Your task to perform on an android device: turn off notifications settings in the gmail app Image 0: 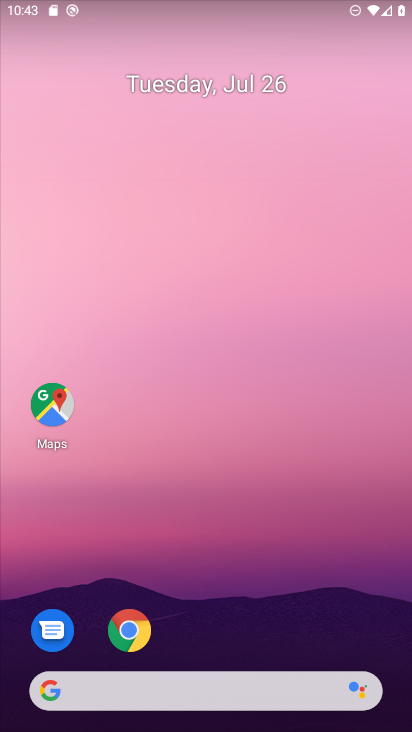
Step 0: drag from (383, 645) to (333, 193)
Your task to perform on an android device: turn off notifications settings in the gmail app Image 1: 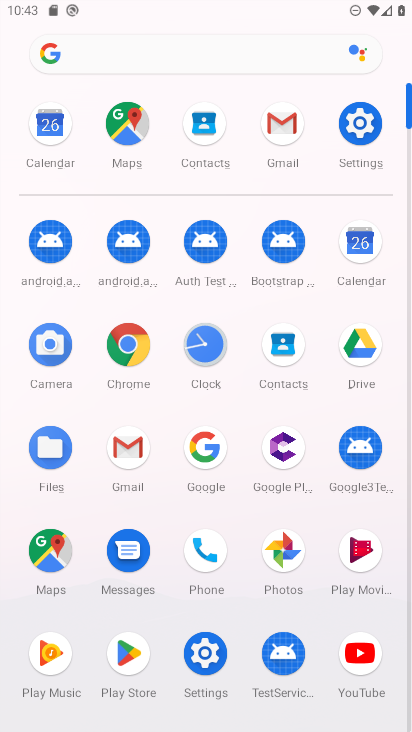
Step 1: click (129, 443)
Your task to perform on an android device: turn off notifications settings in the gmail app Image 2: 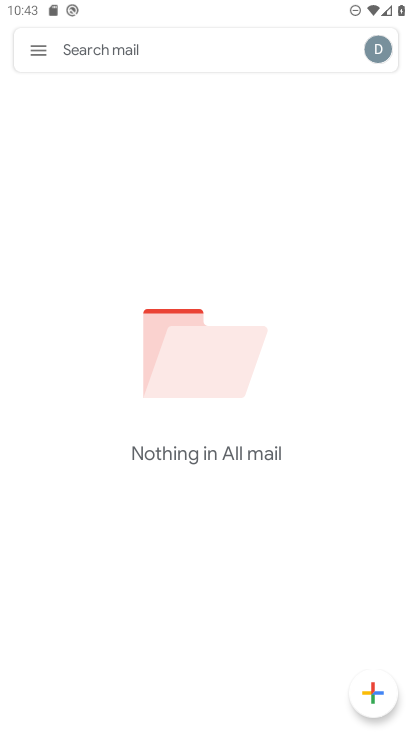
Step 2: click (40, 50)
Your task to perform on an android device: turn off notifications settings in the gmail app Image 3: 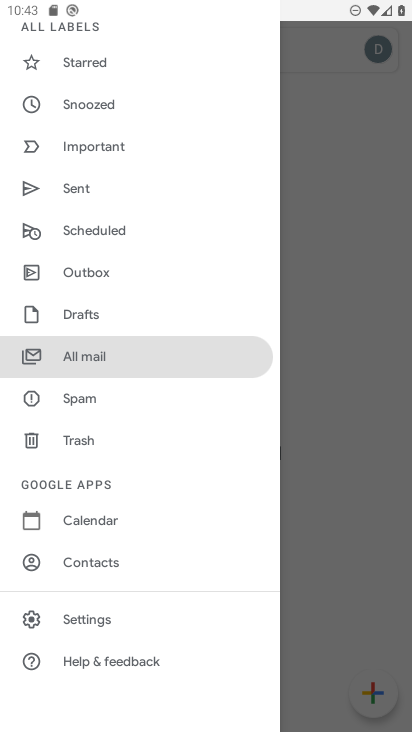
Step 3: click (91, 617)
Your task to perform on an android device: turn off notifications settings in the gmail app Image 4: 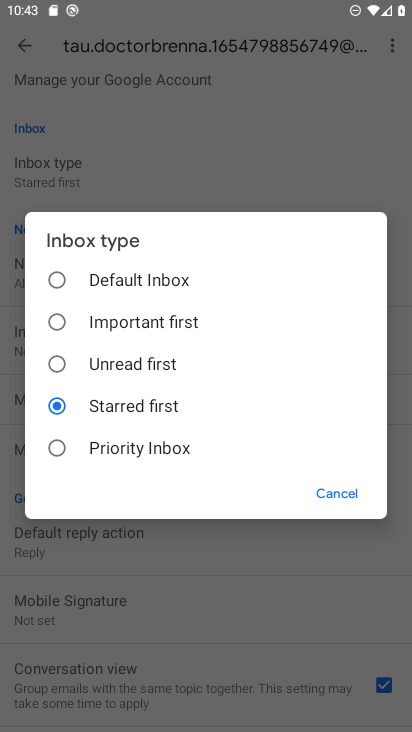
Step 4: click (337, 495)
Your task to perform on an android device: turn off notifications settings in the gmail app Image 5: 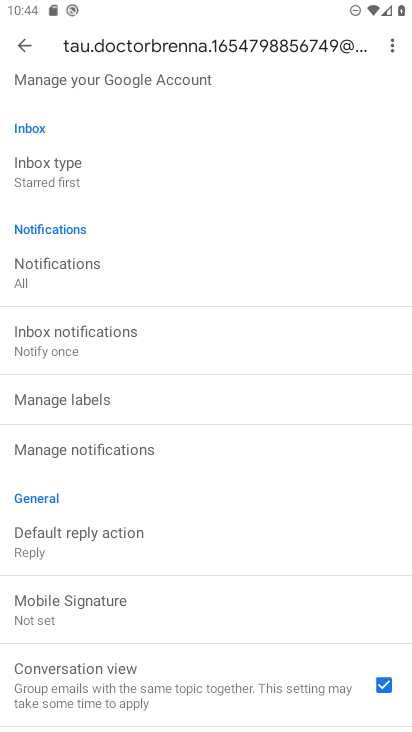
Step 5: click (85, 448)
Your task to perform on an android device: turn off notifications settings in the gmail app Image 6: 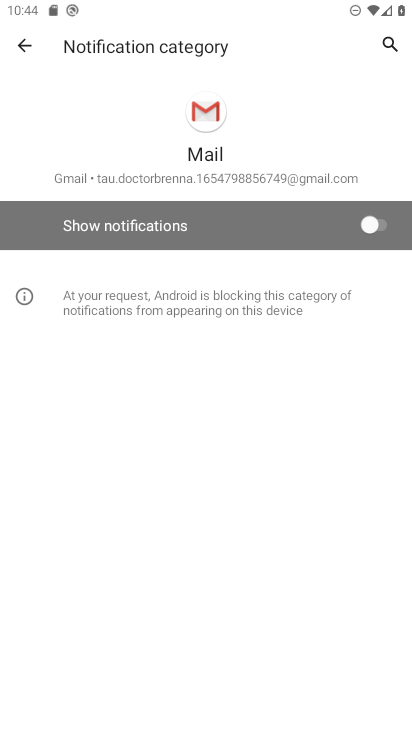
Step 6: task complete